Your task to perform on an android device: Go to Wikipedia Image 0: 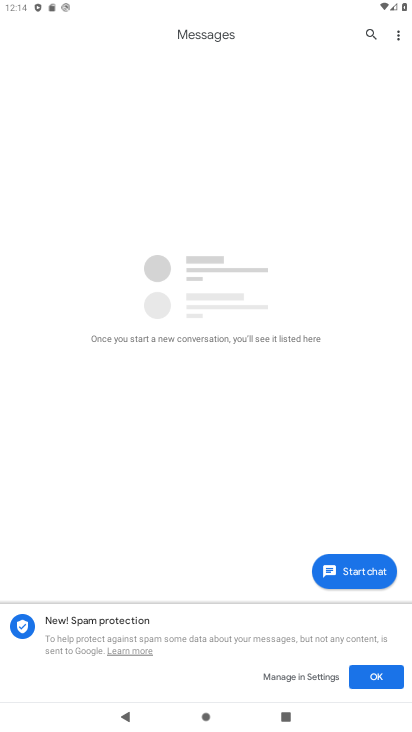
Step 0: press home button
Your task to perform on an android device: Go to Wikipedia Image 1: 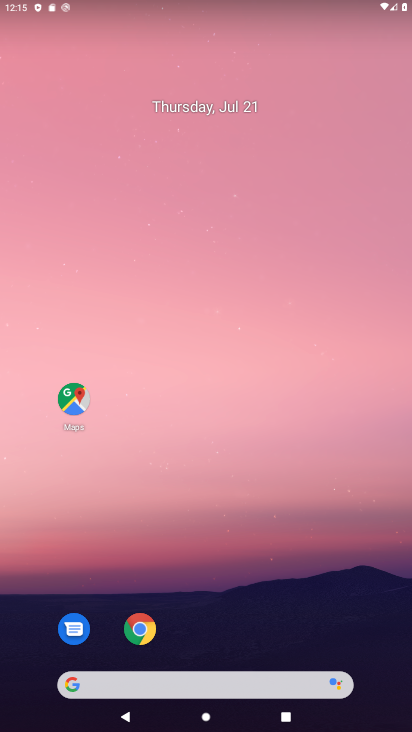
Step 1: drag from (351, 547) to (264, 139)
Your task to perform on an android device: Go to Wikipedia Image 2: 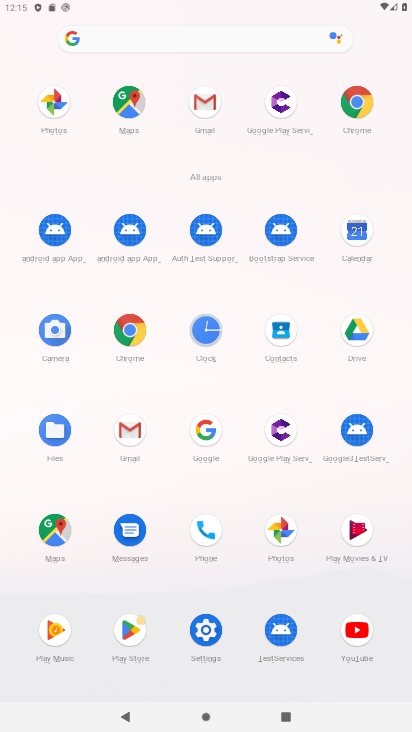
Step 2: click (363, 102)
Your task to perform on an android device: Go to Wikipedia Image 3: 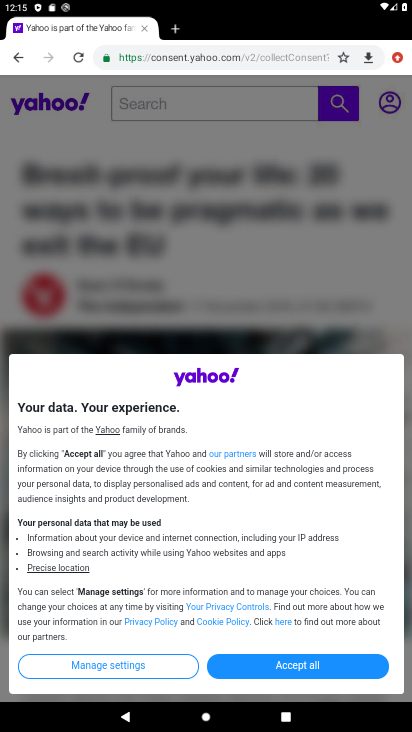
Step 3: click (239, 60)
Your task to perform on an android device: Go to Wikipedia Image 4: 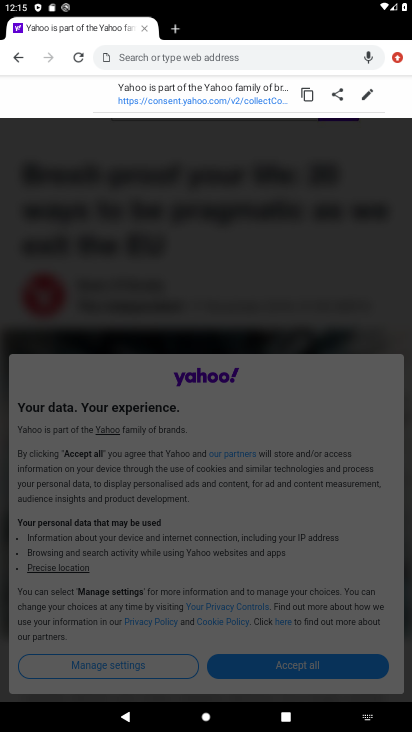
Step 4: type "wikipedia"
Your task to perform on an android device: Go to Wikipedia Image 5: 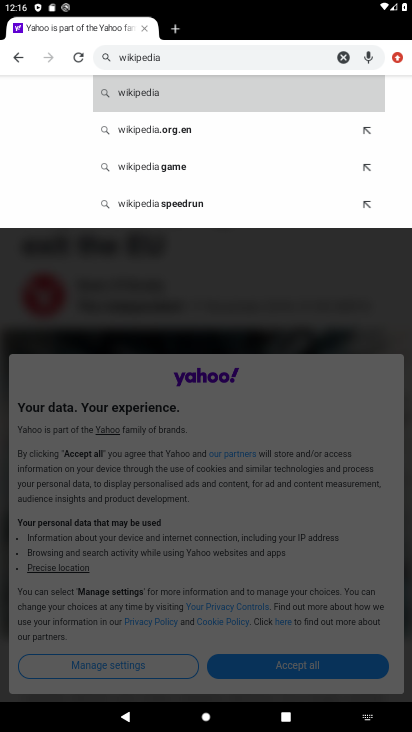
Step 5: click (200, 92)
Your task to perform on an android device: Go to Wikipedia Image 6: 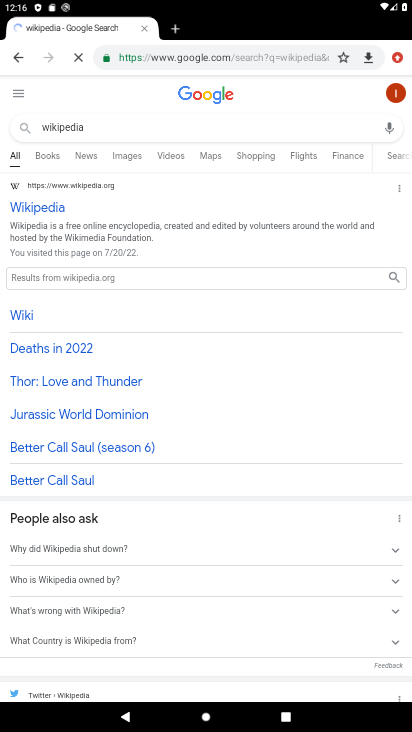
Step 6: click (47, 200)
Your task to perform on an android device: Go to Wikipedia Image 7: 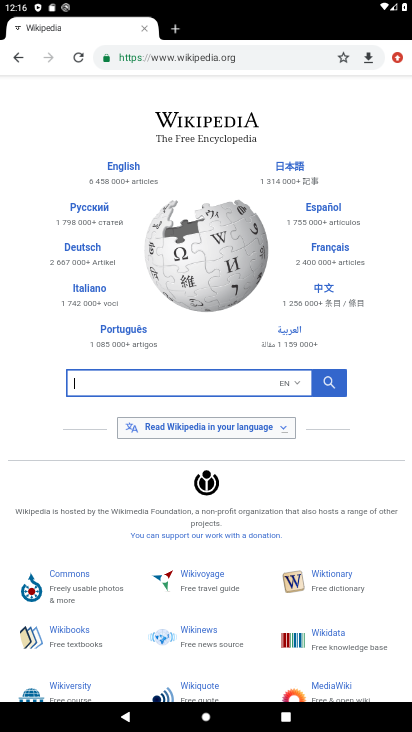
Step 7: task complete